Your task to perform on an android device: Open privacy settings Image 0: 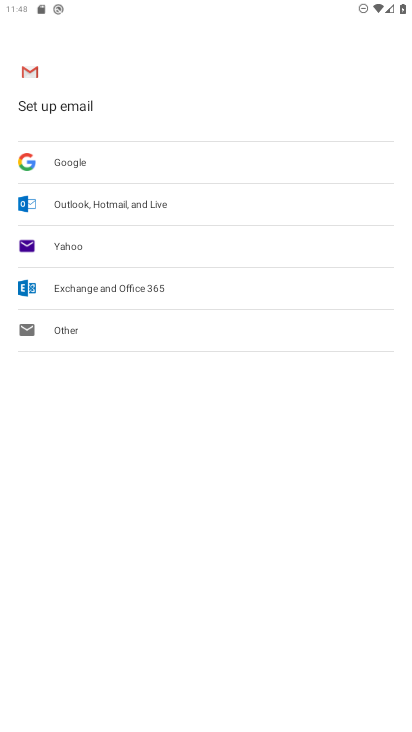
Step 0: press home button
Your task to perform on an android device: Open privacy settings Image 1: 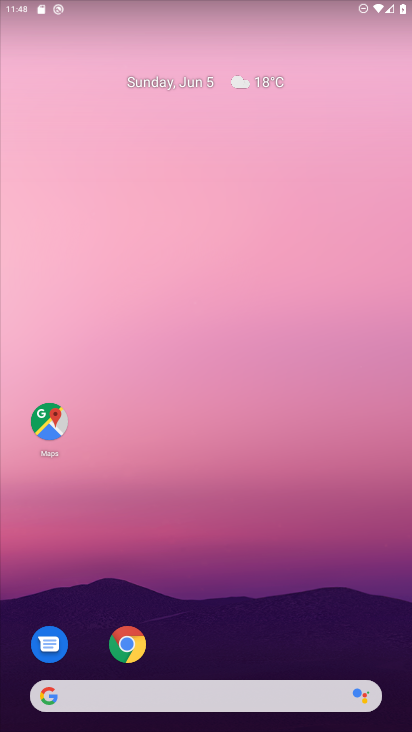
Step 1: drag from (220, 682) to (229, 253)
Your task to perform on an android device: Open privacy settings Image 2: 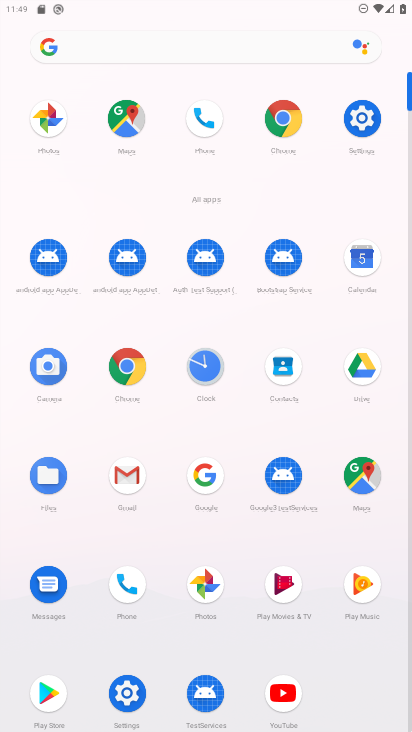
Step 2: click (371, 115)
Your task to perform on an android device: Open privacy settings Image 3: 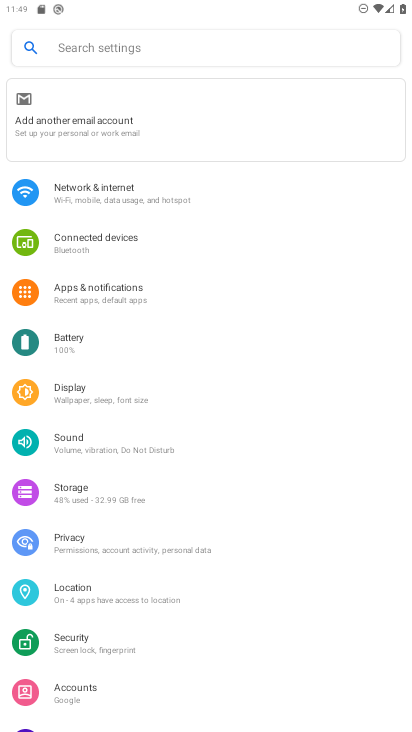
Step 3: click (111, 549)
Your task to perform on an android device: Open privacy settings Image 4: 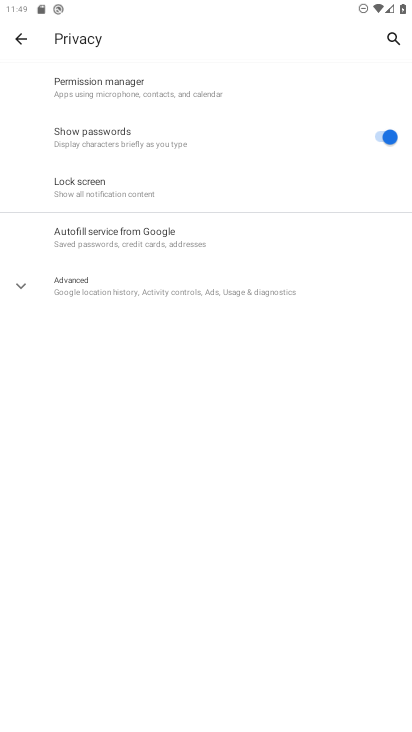
Step 4: task complete